Your task to perform on an android device: read, delete, or share a saved page in the chrome app Image 0: 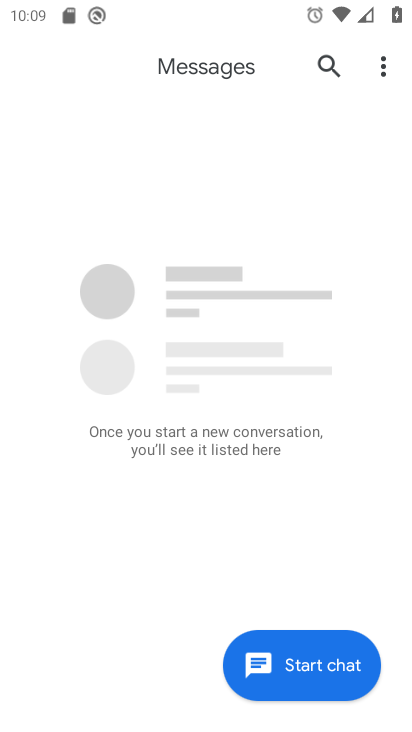
Step 0: press home button
Your task to perform on an android device: read, delete, or share a saved page in the chrome app Image 1: 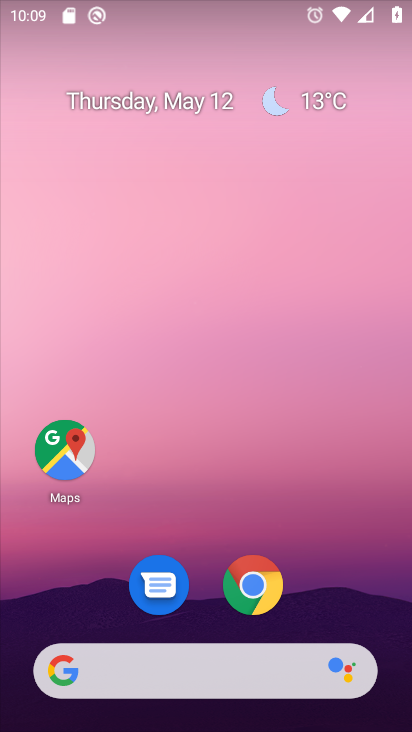
Step 1: click (264, 584)
Your task to perform on an android device: read, delete, or share a saved page in the chrome app Image 2: 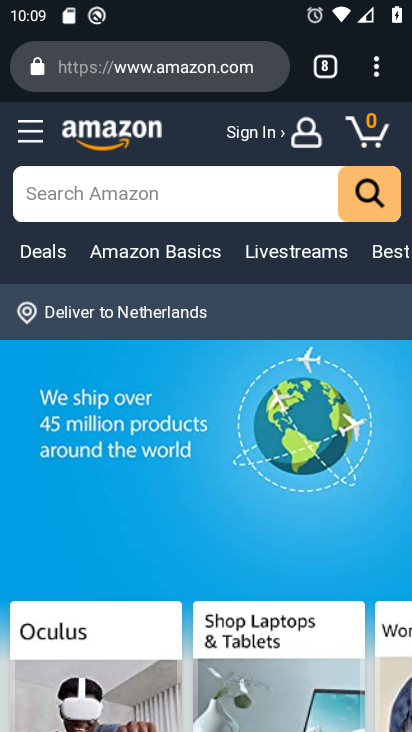
Step 2: click (380, 70)
Your task to perform on an android device: read, delete, or share a saved page in the chrome app Image 3: 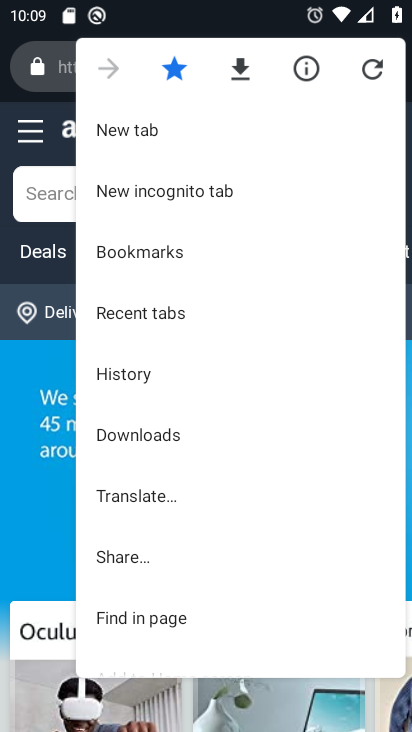
Step 3: click (156, 424)
Your task to perform on an android device: read, delete, or share a saved page in the chrome app Image 4: 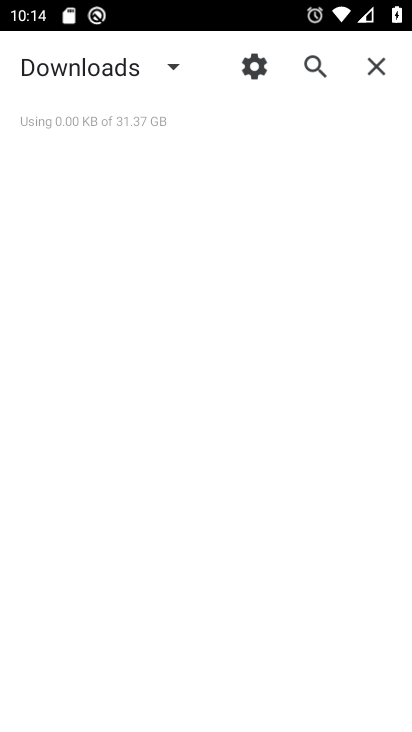
Step 4: task complete